Your task to perform on an android device: Open Maps and search for coffee Image 0: 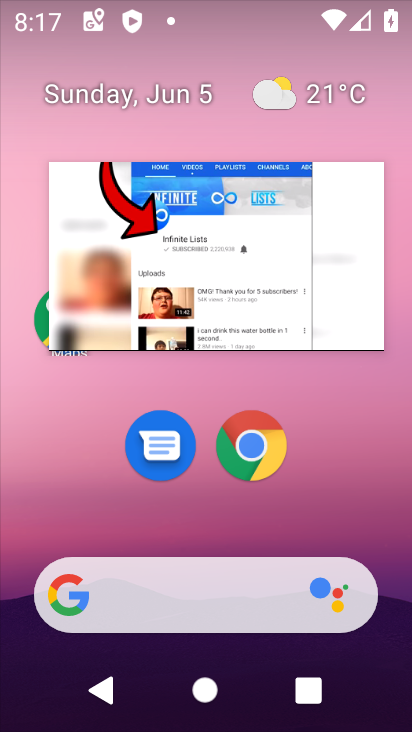
Step 0: click (342, 206)
Your task to perform on an android device: Open Maps and search for coffee Image 1: 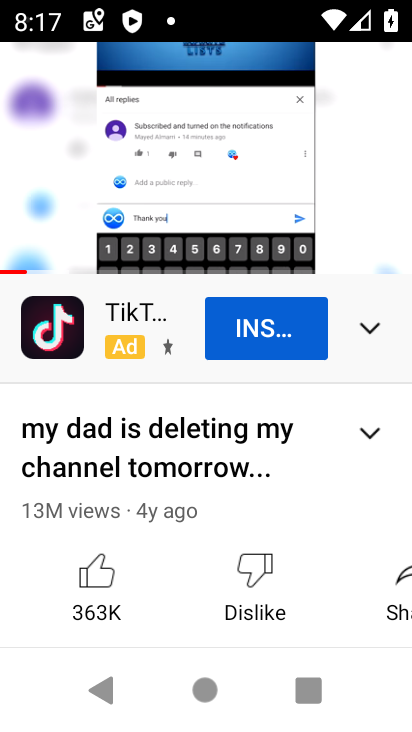
Step 1: press home button
Your task to perform on an android device: Open Maps and search for coffee Image 2: 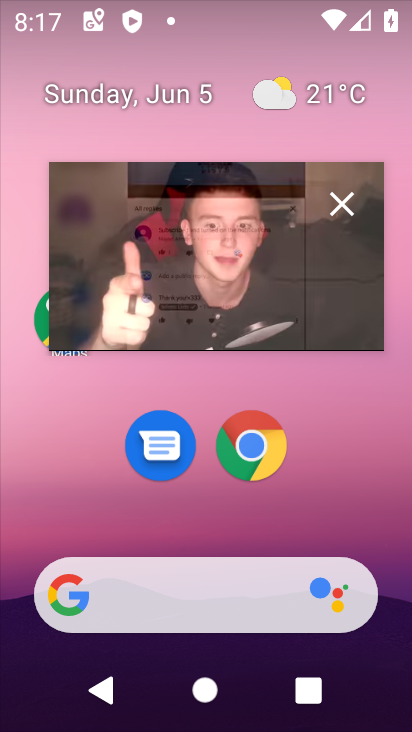
Step 2: click (361, 178)
Your task to perform on an android device: Open Maps and search for coffee Image 3: 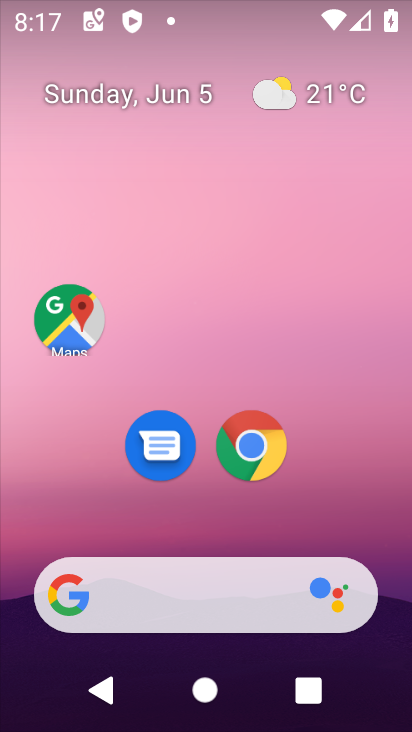
Step 3: click (64, 318)
Your task to perform on an android device: Open Maps and search for coffee Image 4: 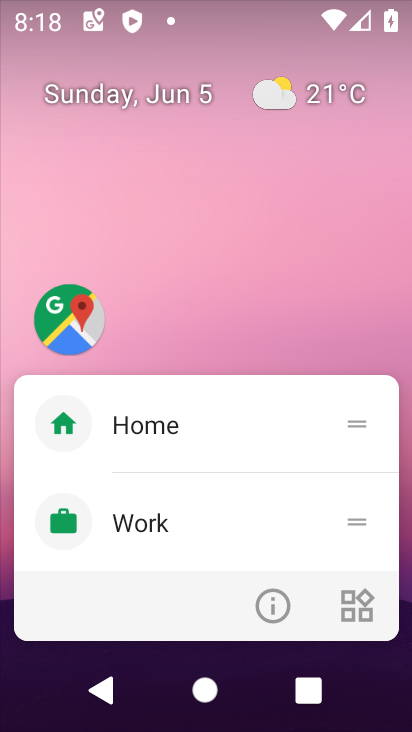
Step 4: click (223, 295)
Your task to perform on an android device: Open Maps and search for coffee Image 5: 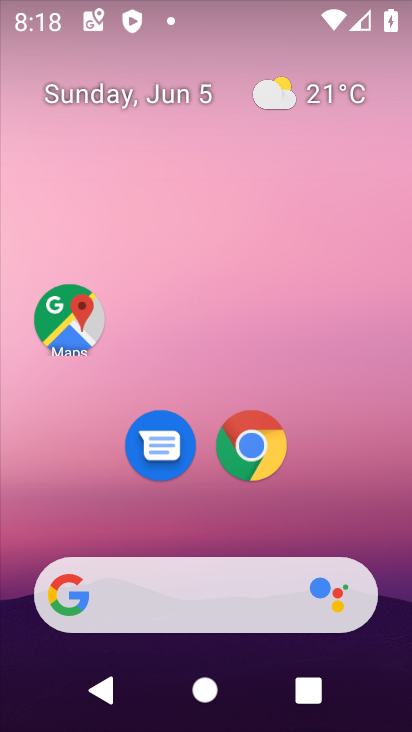
Step 5: drag from (210, 532) to (199, 165)
Your task to perform on an android device: Open Maps and search for coffee Image 6: 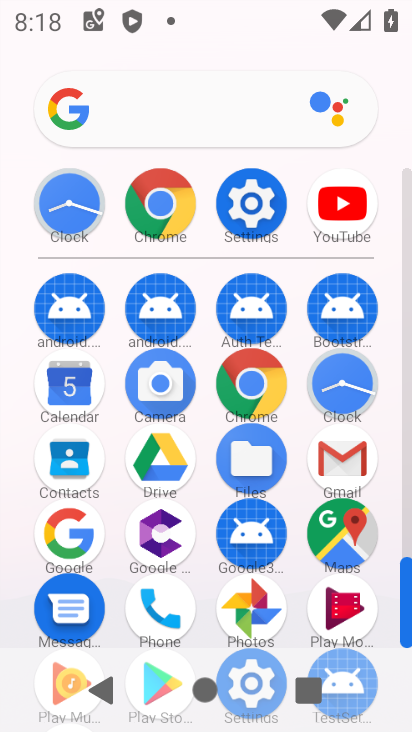
Step 6: click (335, 542)
Your task to perform on an android device: Open Maps and search for coffee Image 7: 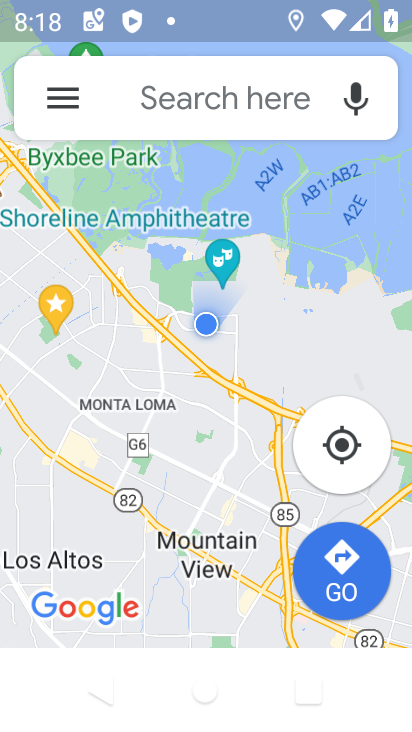
Step 7: click (230, 115)
Your task to perform on an android device: Open Maps and search for coffee Image 8: 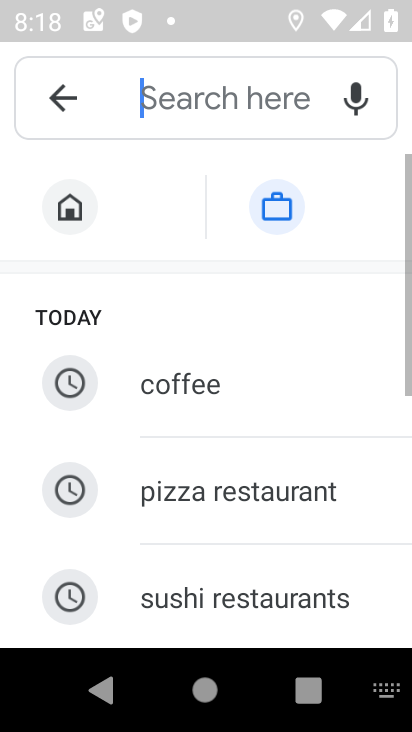
Step 8: click (196, 386)
Your task to perform on an android device: Open Maps and search for coffee Image 9: 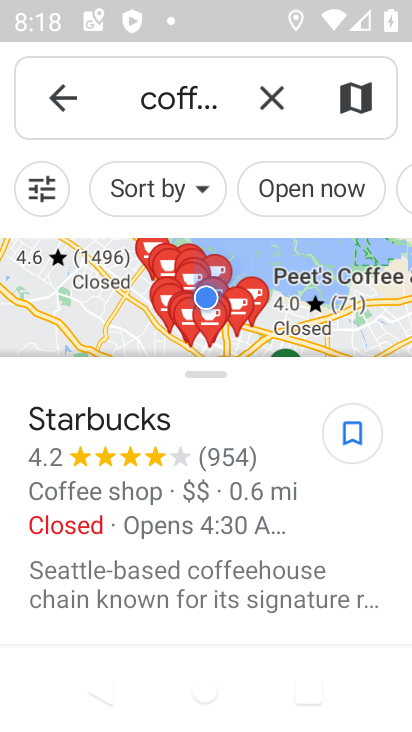
Step 9: task complete